Your task to perform on an android device: Do I have any events tomorrow? Image 0: 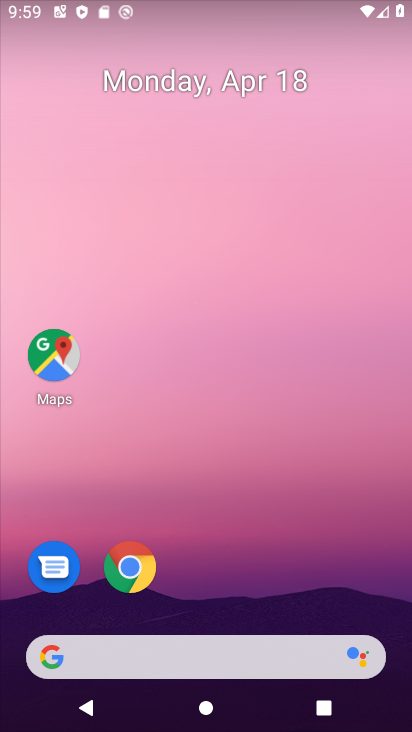
Step 0: drag from (397, 574) to (363, 149)
Your task to perform on an android device: Do I have any events tomorrow? Image 1: 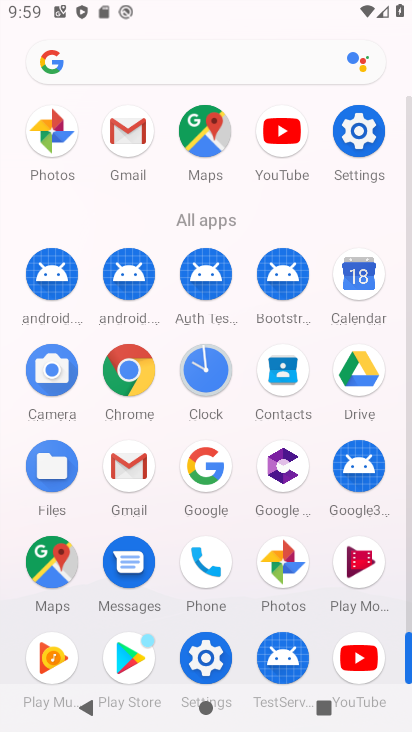
Step 1: click (349, 282)
Your task to perform on an android device: Do I have any events tomorrow? Image 2: 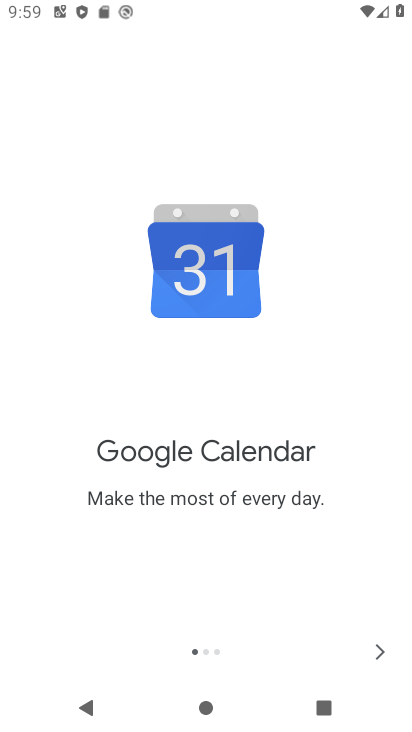
Step 2: click (382, 652)
Your task to perform on an android device: Do I have any events tomorrow? Image 3: 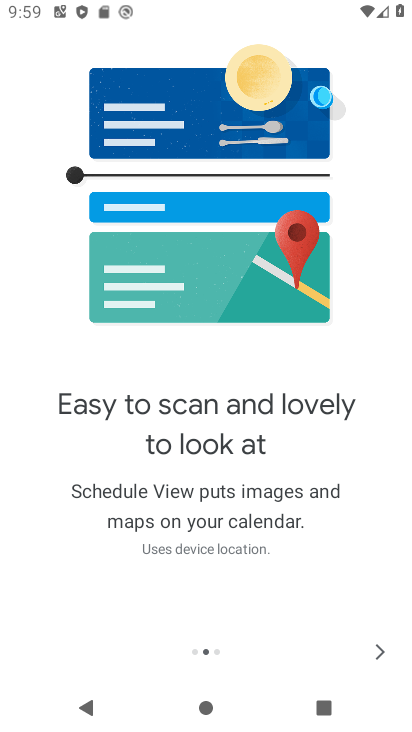
Step 3: click (382, 652)
Your task to perform on an android device: Do I have any events tomorrow? Image 4: 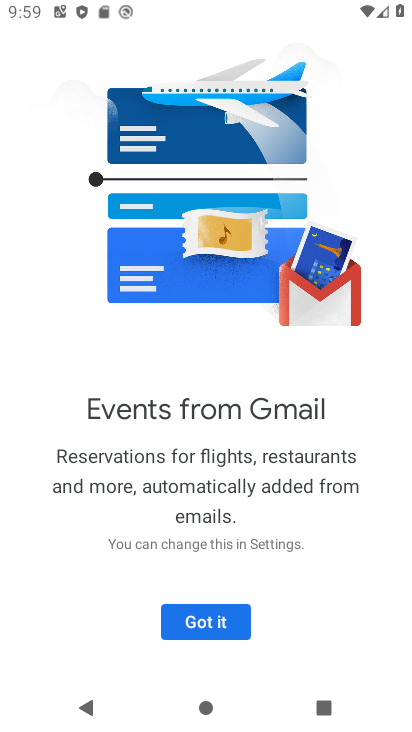
Step 4: click (229, 622)
Your task to perform on an android device: Do I have any events tomorrow? Image 5: 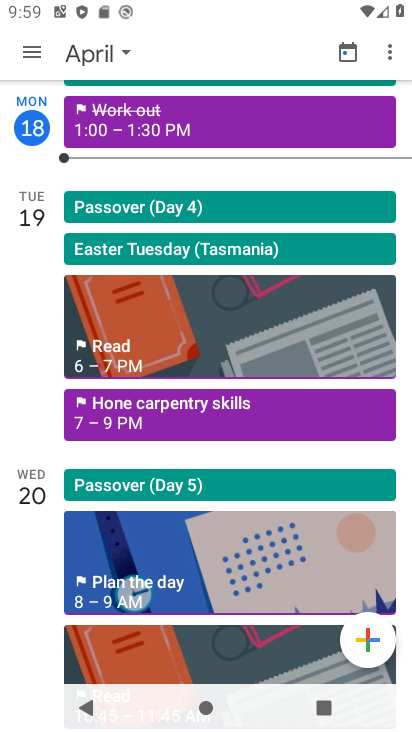
Step 5: task complete